Your task to perform on an android device: Open Chrome and go to the settings page Image 0: 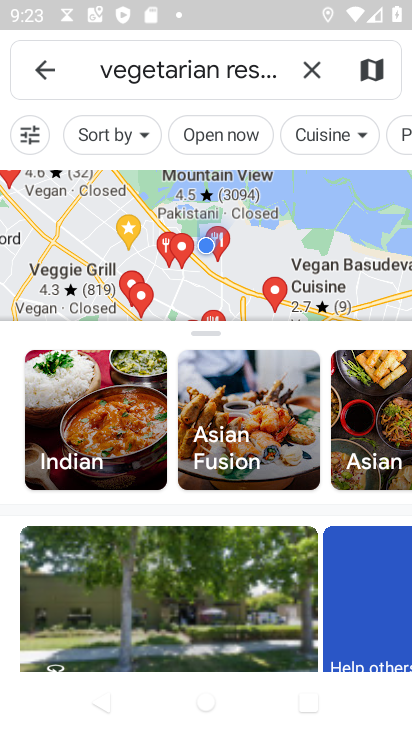
Step 0: press back button
Your task to perform on an android device: Open Chrome and go to the settings page Image 1: 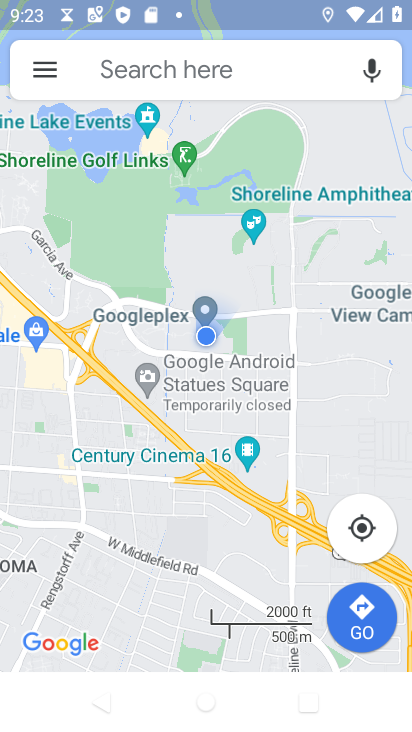
Step 1: press back button
Your task to perform on an android device: Open Chrome and go to the settings page Image 2: 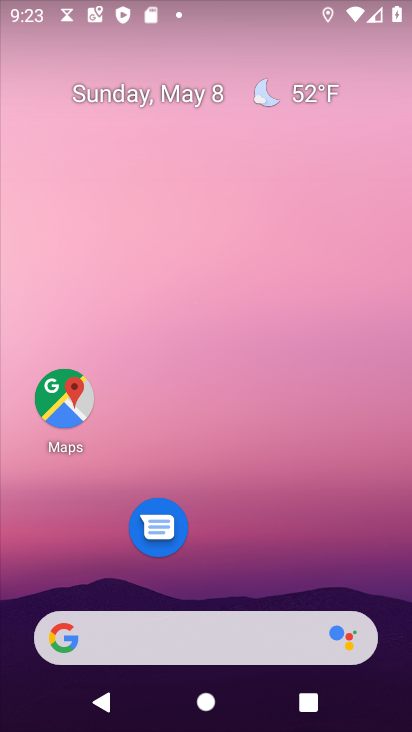
Step 2: drag from (253, 530) to (178, 143)
Your task to perform on an android device: Open Chrome and go to the settings page Image 3: 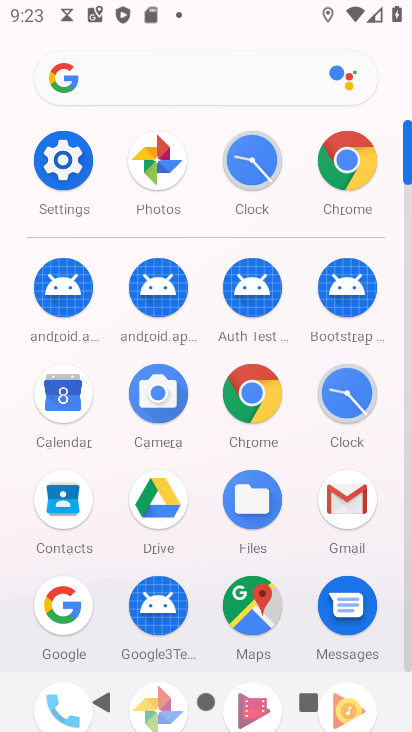
Step 3: click (252, 395)
Your task to perform on an android device: Open Chrome and go to the settings page Image 4: 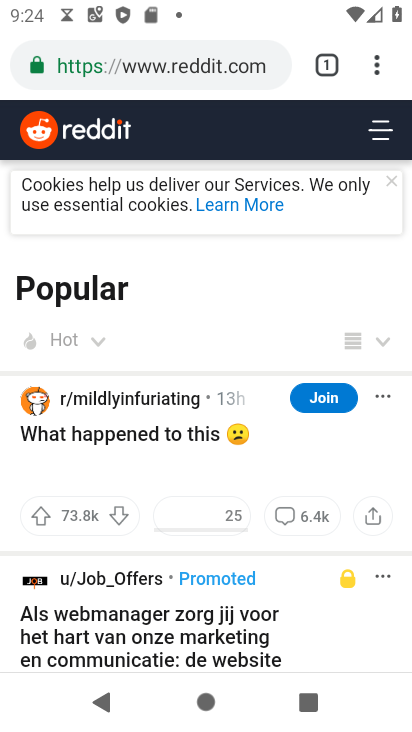
Step 4: click (379, 62)
Your task to perform on an android device: Open Chrome and go to the settings page Image 5: 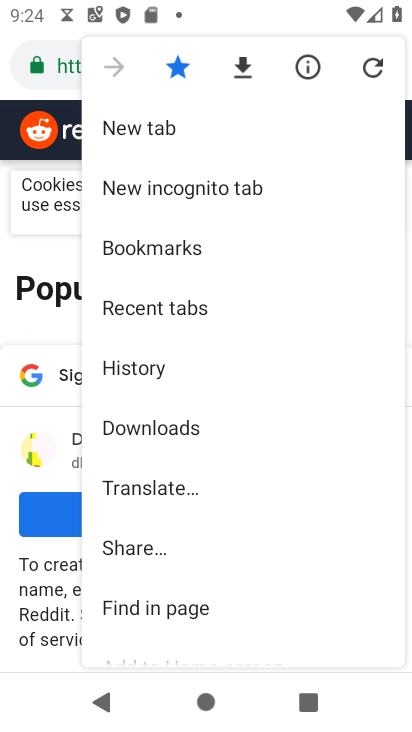
Step 5: drag from (161, 578) to (177, 439)
Your task to perform on an android device: Open Chrome and go to the settings page Image 6: 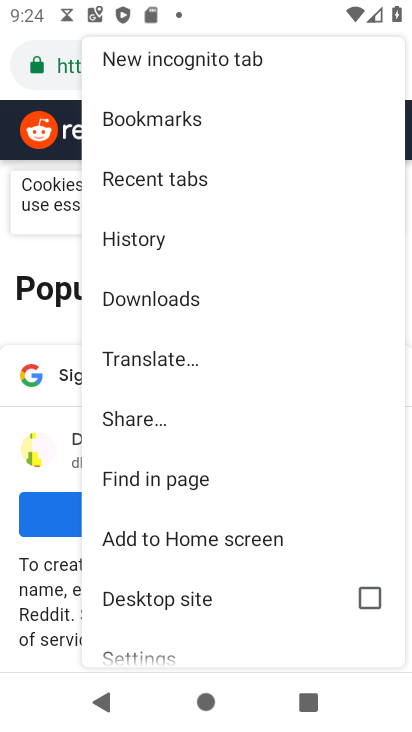
Step 6: drag from (176, 556) to (237, 416)
Your task to perform on an android device: Open Chrome and go to the settings page Image 7: 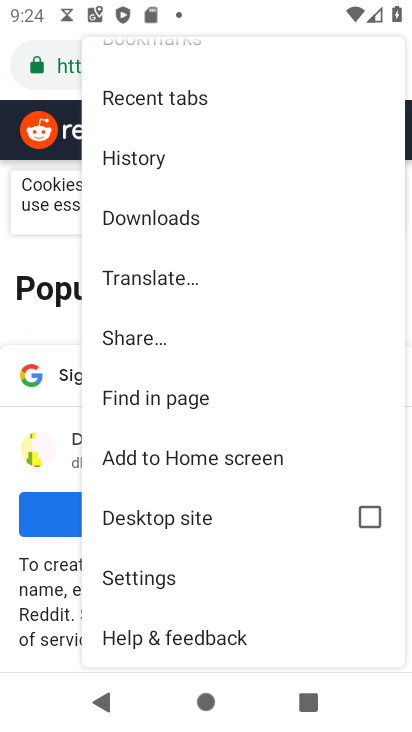
Step 7: click (164, 582)
Your task to perform on an android device: Open Chrome and go to the settings page Image 8: 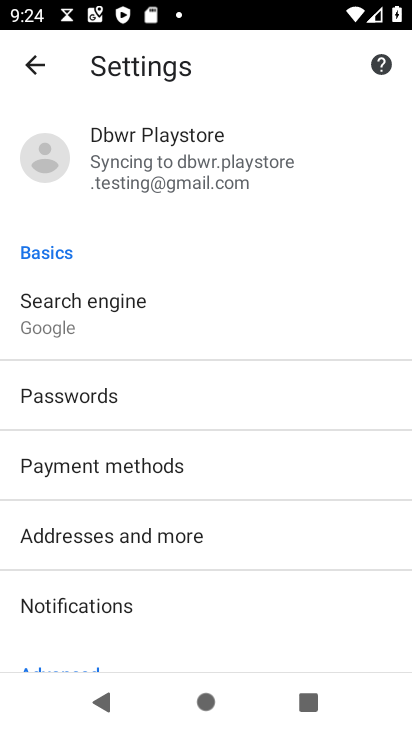
Step 8: task complete